Your task to perform on an android device: create a new album in the google photos Image 0: 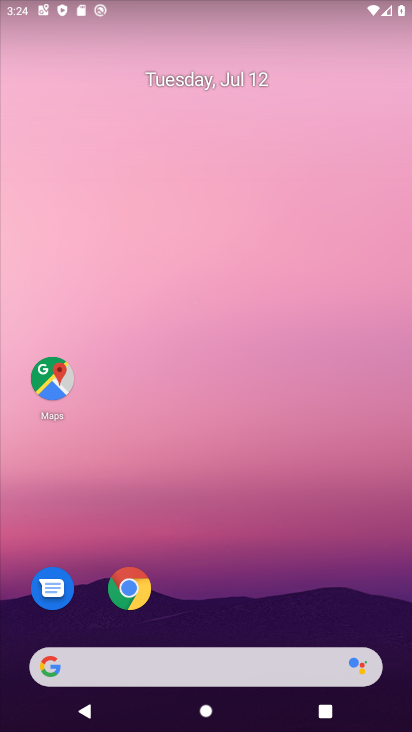
Step 0: drag from (333, 598) to (342, 118)
Your task to perform on an android device: create a new album in the google photos Image 1: 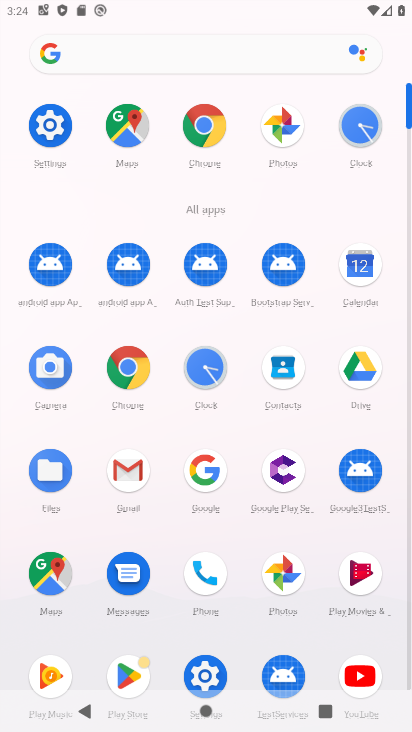
Step 1: click (283, 567)
Your task to perform on an android device: create a new album in the google photos Image 2: 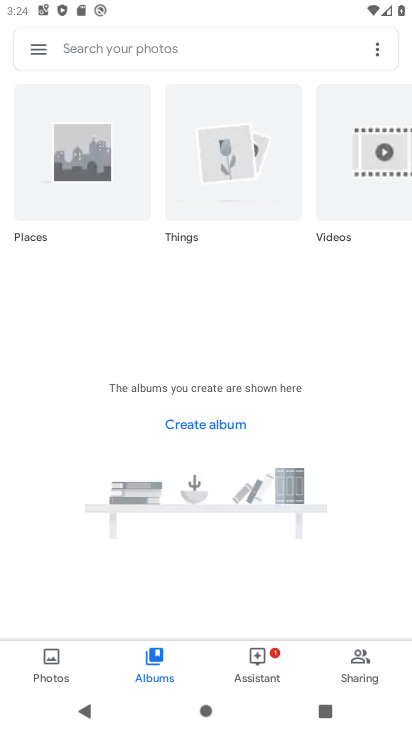
Step 2: click (218, 420)
Your task to perform on an android device: create a new album in the google photos Image 3: 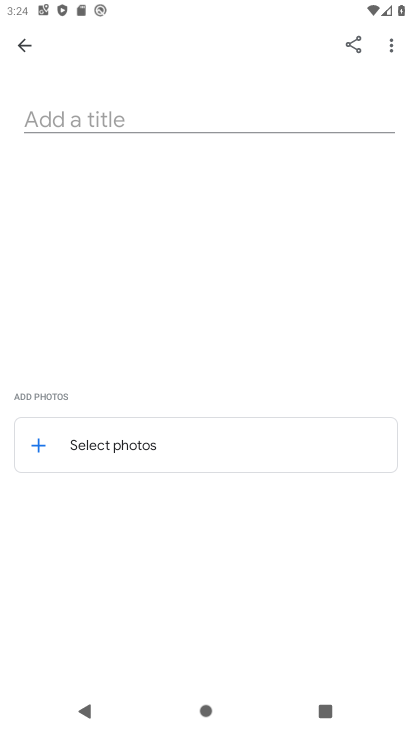
Step 3: type "mk"
Your task to perform on an android device: create a new album in the google photos Image 4: 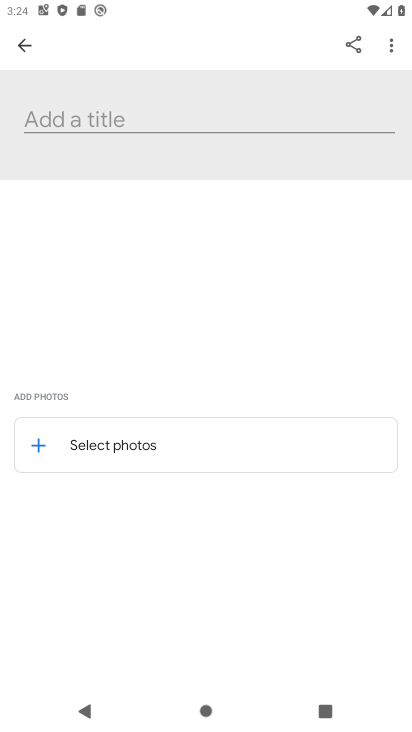
Step 4: click (190, 462)
Your task to perform on an android device: create a new album in the google photos Image 5: 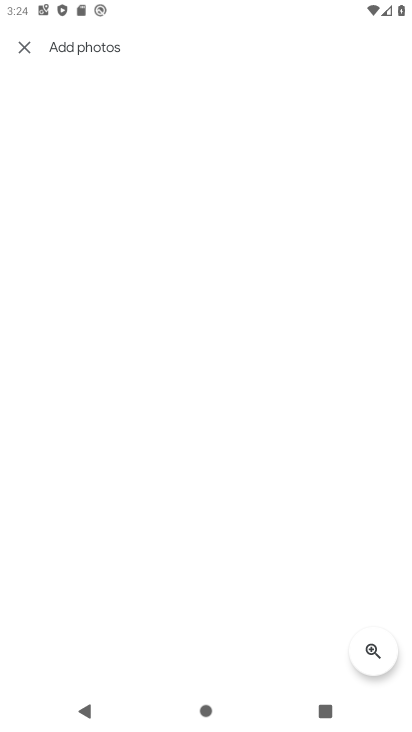
Step 5: task complete